Your task to perform on an android device: Open Youtube and go to "Your channel" Image 0: 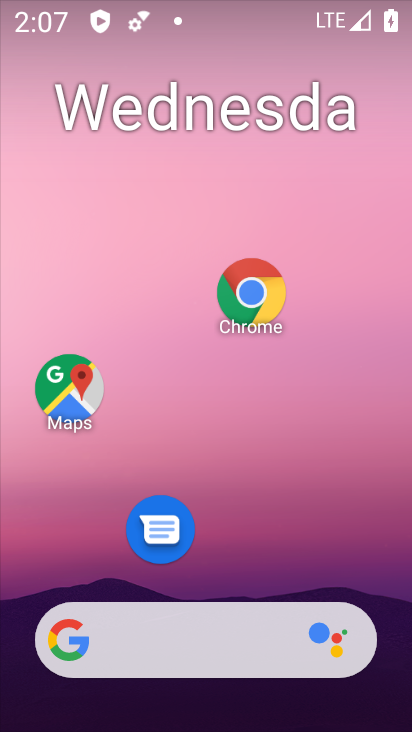
Step 0: drag from (295, 523) to (409, 11)
Your task to perform on an android device: Open Youtube and go to "Your channel" Image 1: 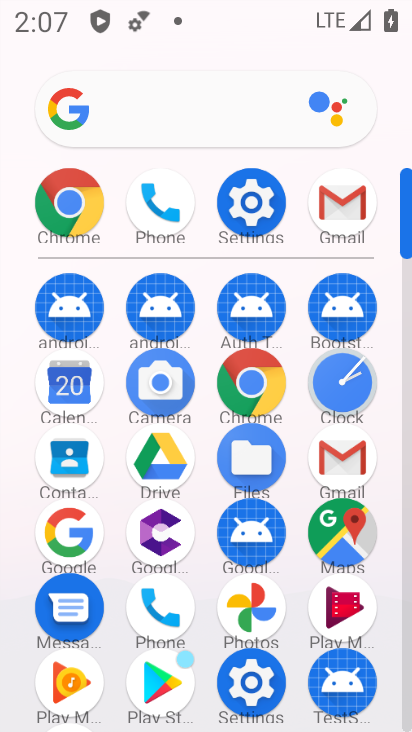
Step 1: click (409, 503)
Your task to perform on an android device: Open Youtube and go to "Your channel" Image 2: 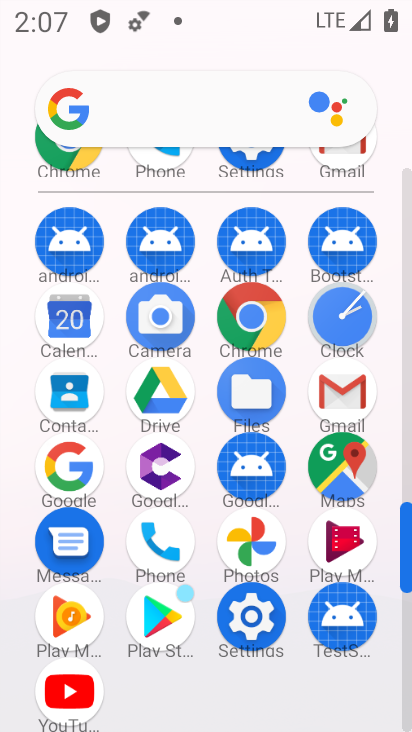
Step 2: click (88, 704)
Your task to perform on an android device: Open Youtube and go to "Your channel" Image 3: 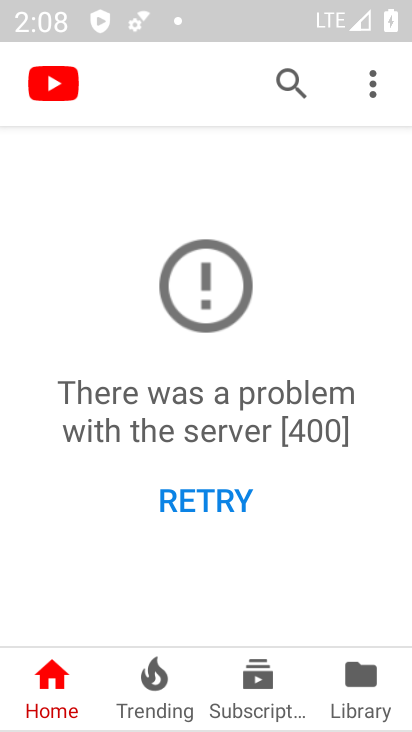
Step 3: click (355, 697)
Your task to perform on an android device: Open Youtube and go to "Your channel" Image 4: 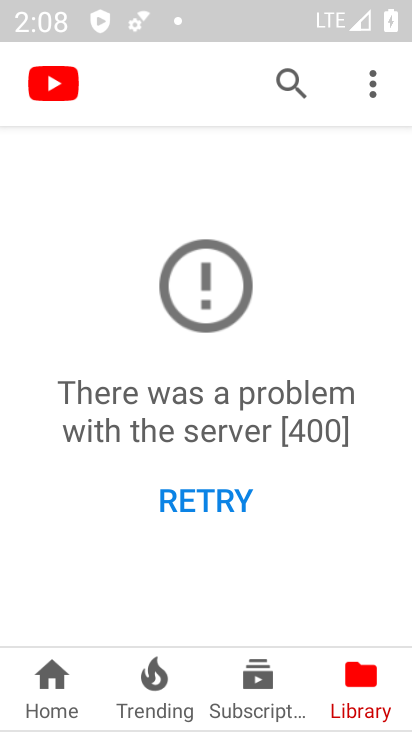
Step 4: click (222, 501)
Your task to perform on an android device: Open Youtube and go to "Your channel" Image 5: 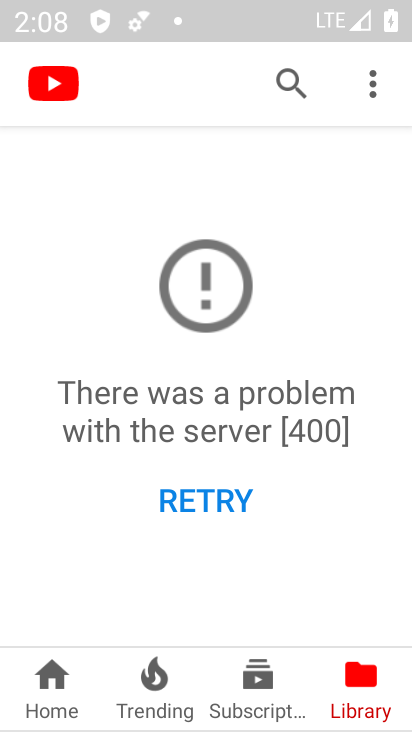
Step 5: task complete